Your task to perform on an android device: check battery use Image 0: 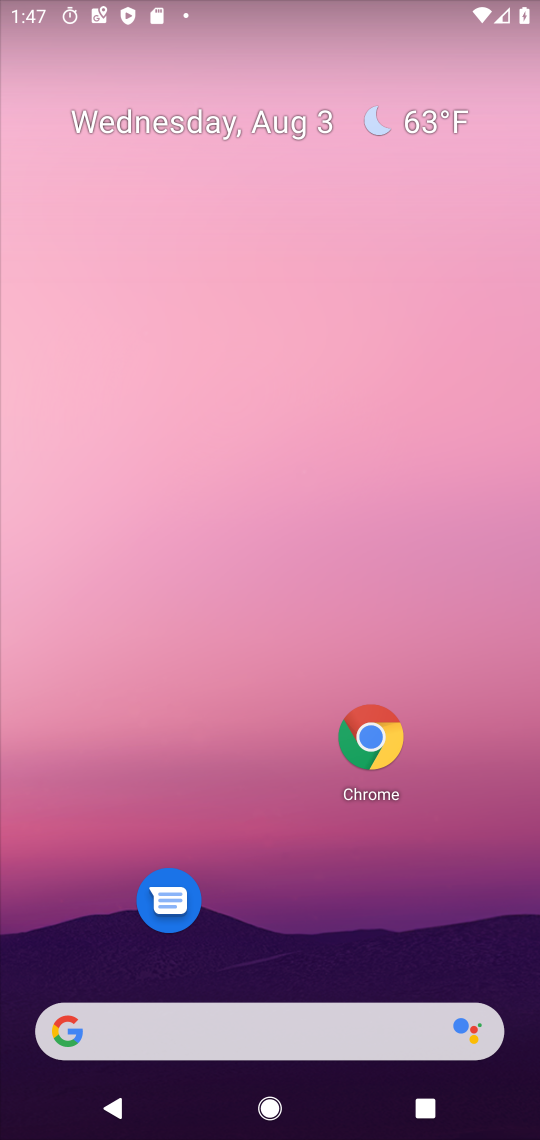
Step 0: drag from (247, 857) to (324, 202)
Your task to perform on an android device: check battery use Image 1: 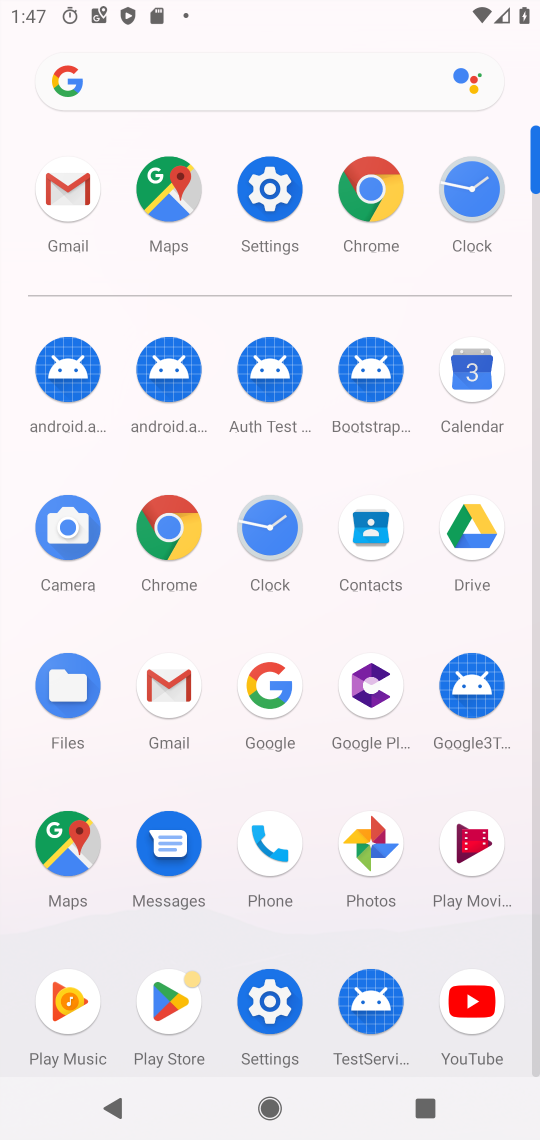
Step 1: click (290, 194)
Your task to perform on an android device: check battery use Image 2: 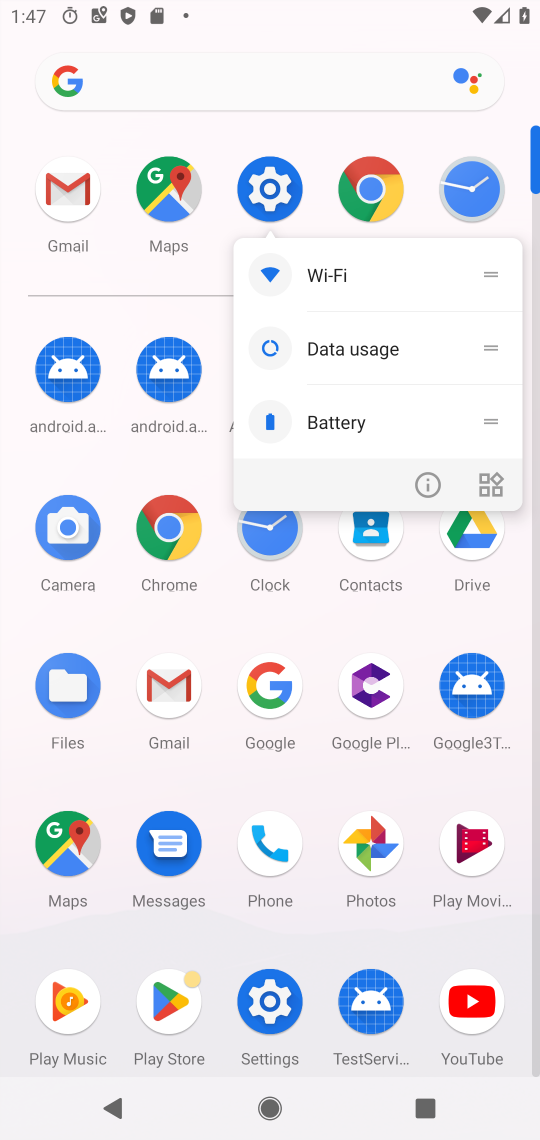
Step 2: click (280, 1003)
Your task to perform on an android device: check battery use Image 3: 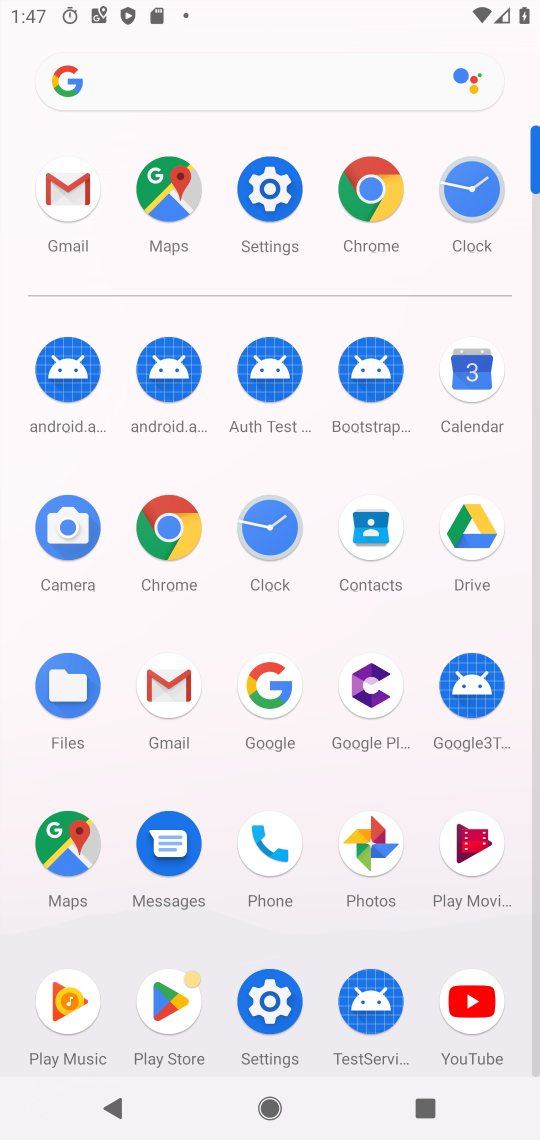
Step 3: click (261, 1002)
Your task to perform on an android device: check battery use Image 4: 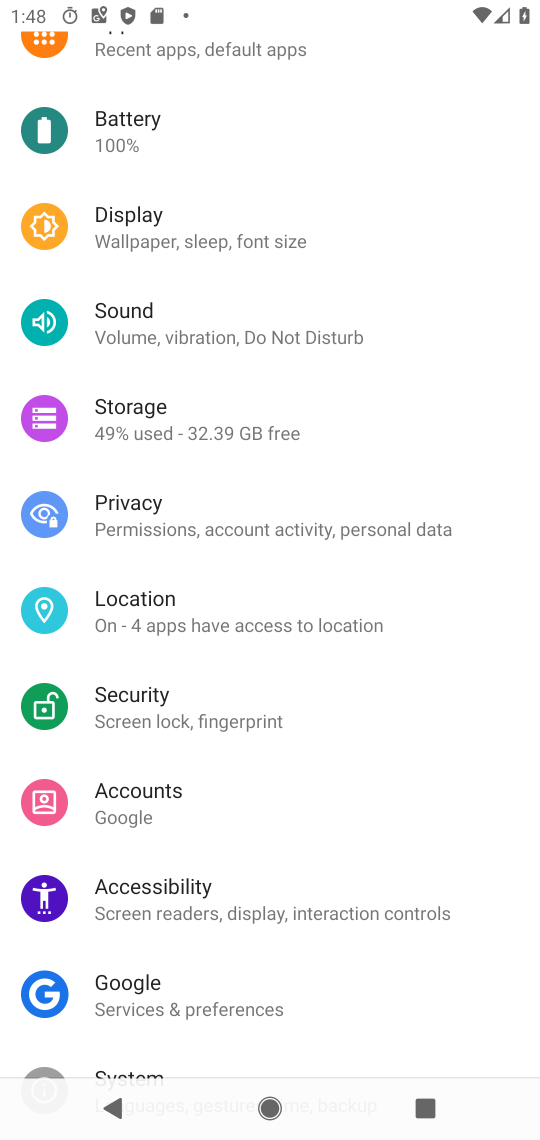
Step 4: click (127, 120)
Your task to perform on an android device: check battery use Image 5: 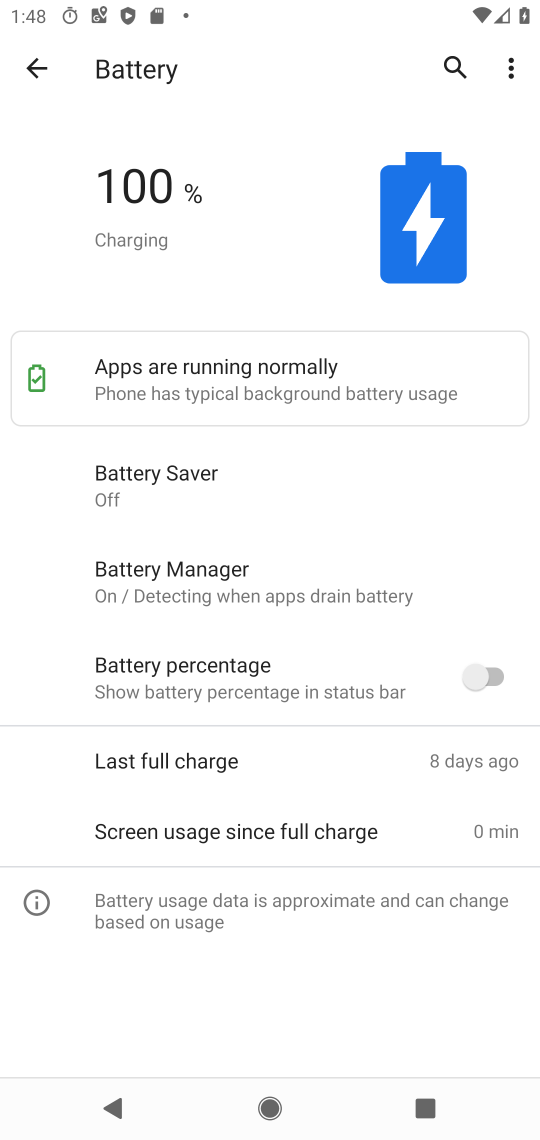
Step 5: click (511, 60)
Your task to perform on an android device: check battery use Image 6: 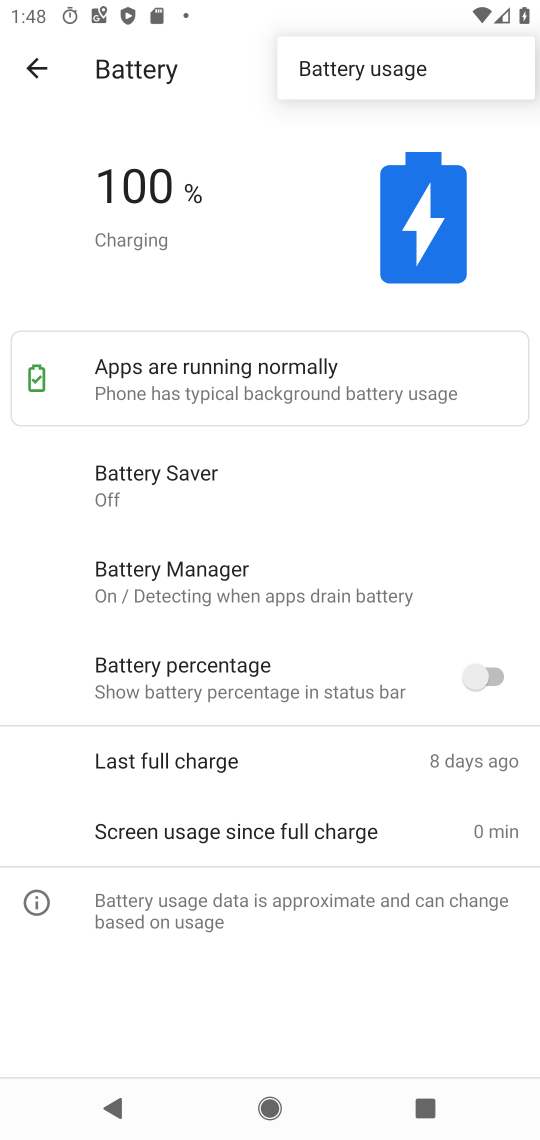
Step 6: click (420, 77)
Your task to perform on an android device: check battery use Image 7: 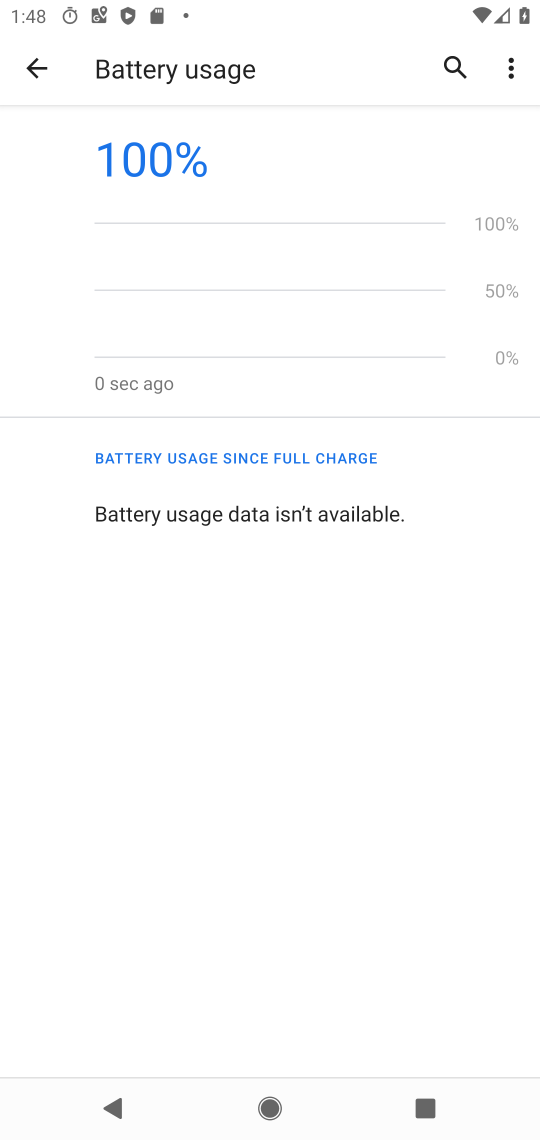
Step 7: task complete